Your task to perform on an android device: Clear the shopping cart on costco. Image 0: 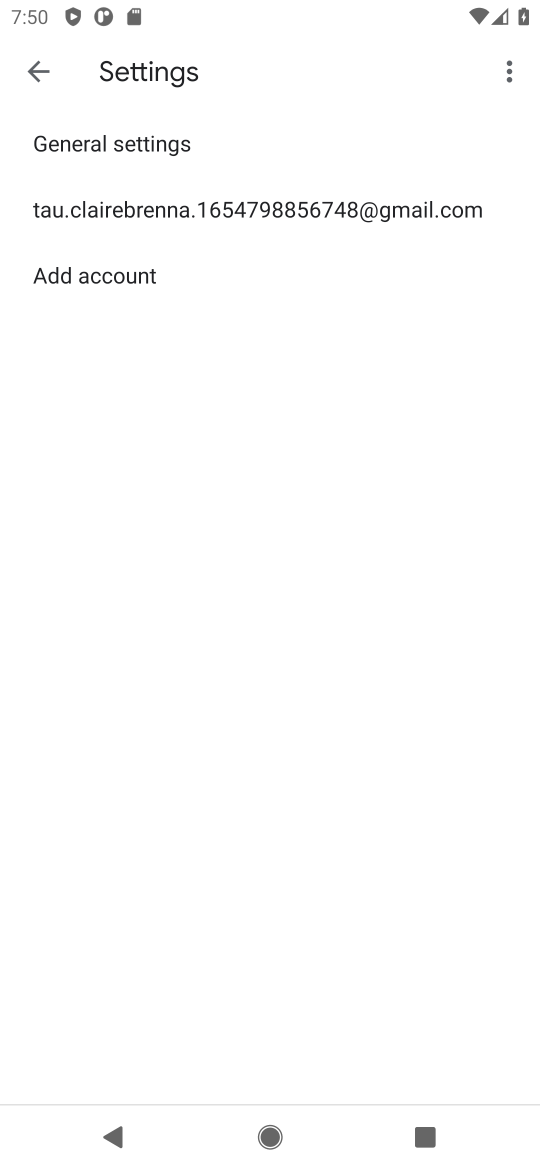
Step 0: press home button
Your task to perform on an android device: Clear the shopping cart on costco. Image 1: 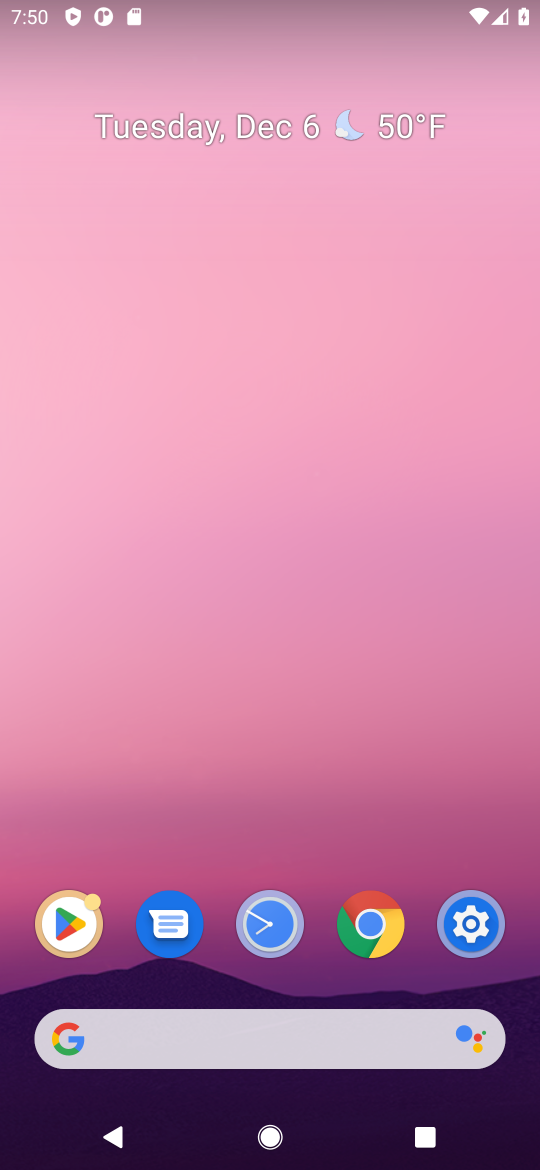
Step 1: click (199, 1045)
Your task to perform on an android device: Clear the shopping cart on costco. Image 2: 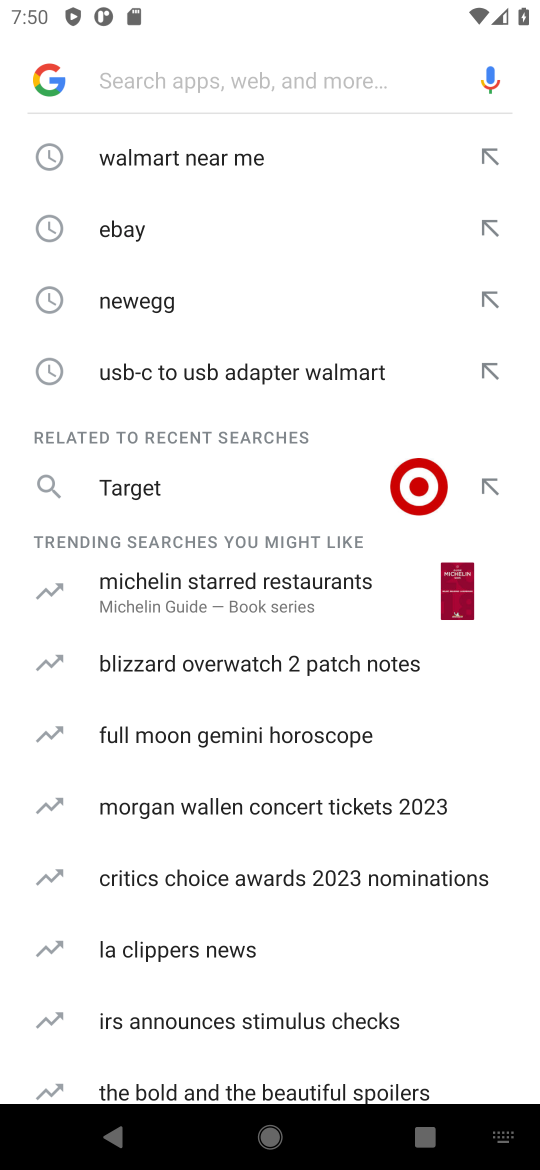
Step 2: type "costco"
Your task to perform on an android device: Clear the shopping cart on costco. Image 3: 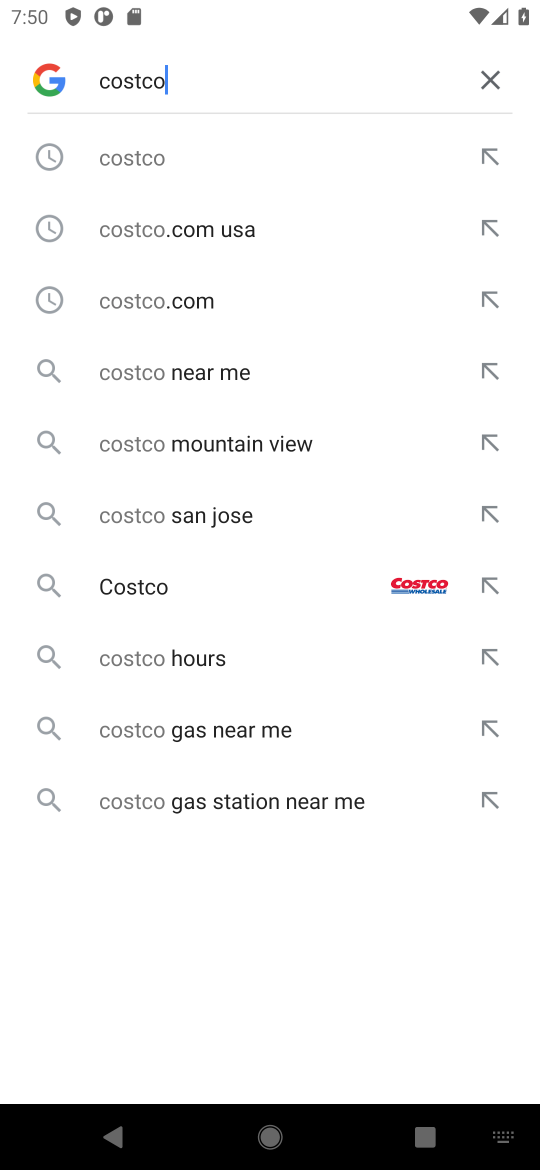
Step 3: click (255, 605)
Your task to perform on an android device: Clear the shopping cart on costco. Image 4: 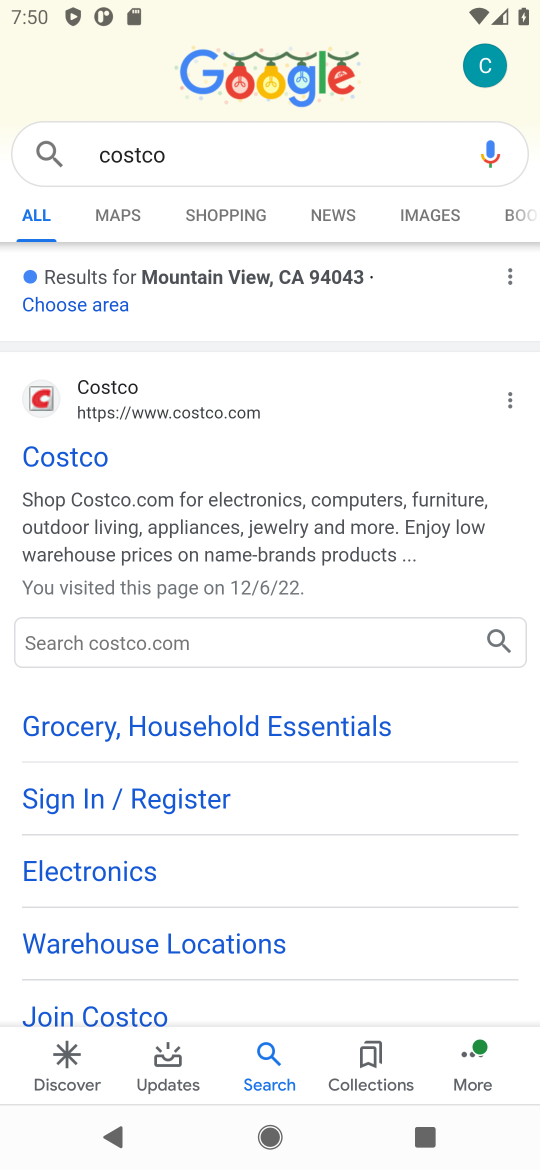
Step 4: click (30, 450)
Your task to perform on an android device: Clear the shopping cart on costco. Image 5: 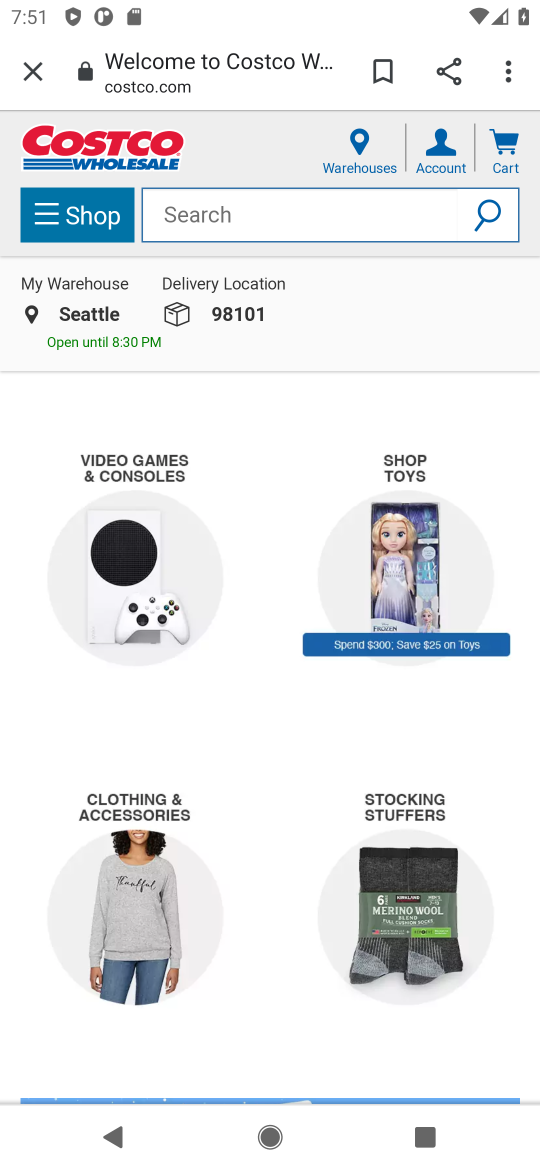
Step 5: click (251, 206)
Your task to perform on an android device: Clear the shopping cart on costco. Image 6: 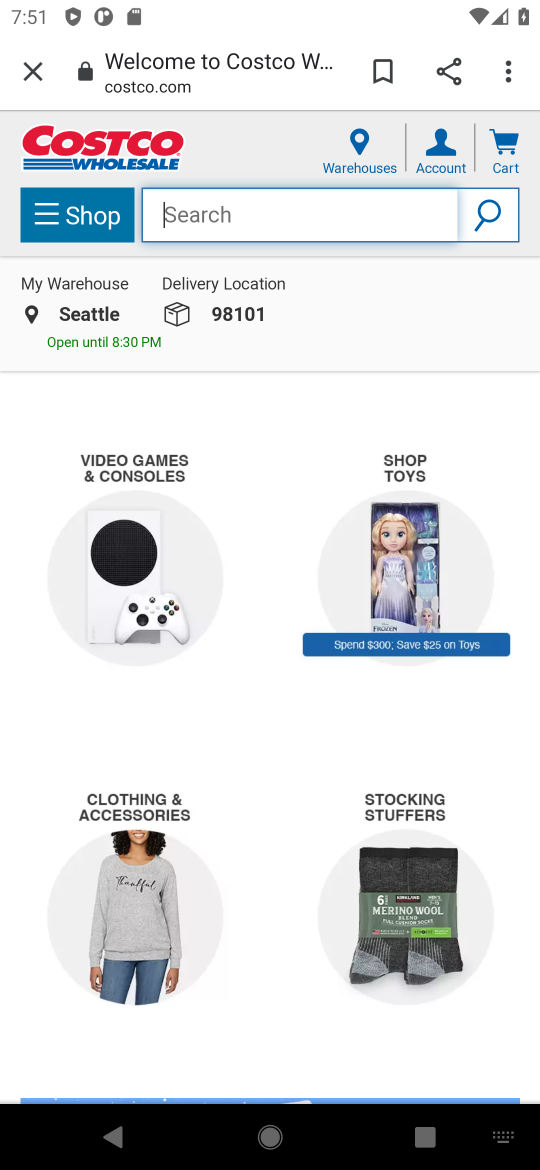
Step 6: click (483, 159)
Your task to perform on an android device: Clear the shopping cart on costco. Image 7: 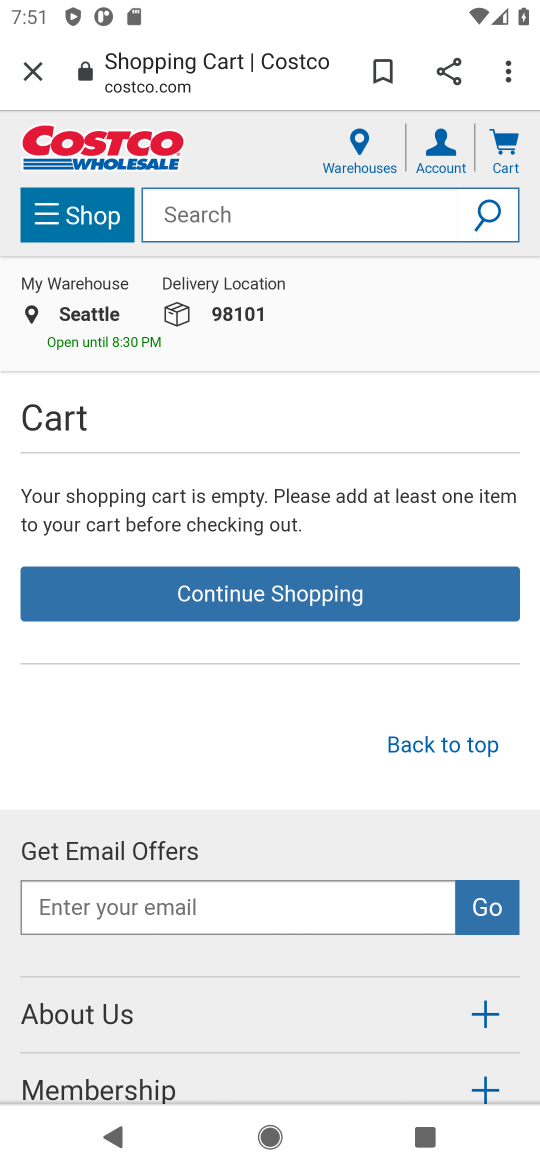
Step 7: task complete